Your task to perform on an android device: turn pop-ups off in chrome Image 0: 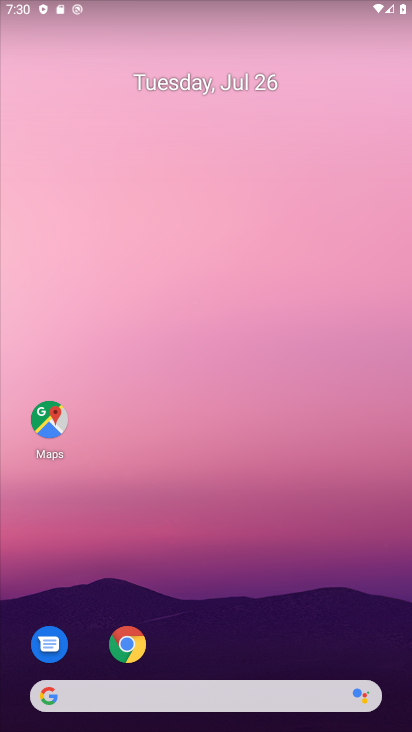
Step 0: click (125, 642)
Your task to perform on an android device: turn pop-ups off in chrome Image 1: 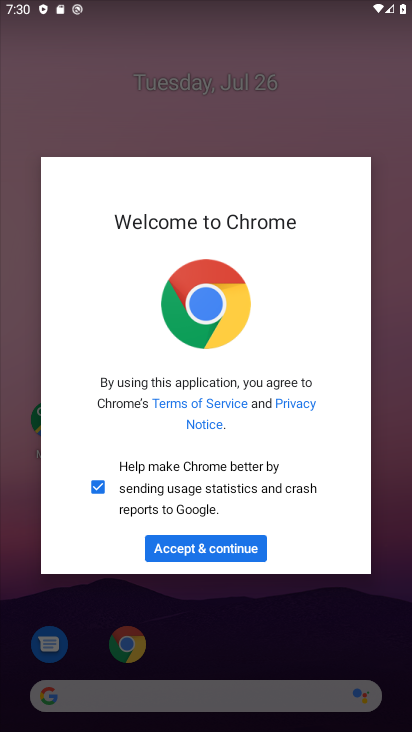
Step 1: click (211, 548)
Your task to perform on an android device: turn pop-ups off in chrome Image 2: 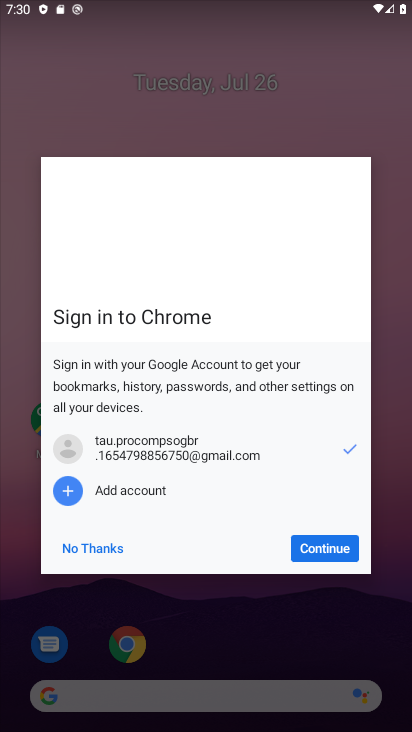
Step 2: click (319, 548)
Your task to perform on an android device: turn pop-ups off in chrome Image 3: 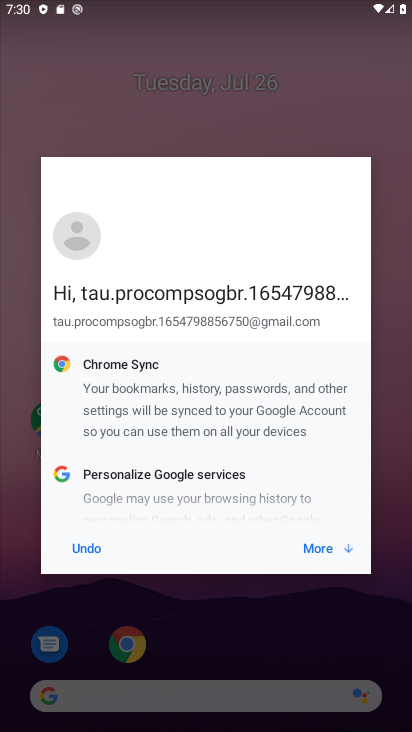
Step 3: click (319, 547)
Your task to perform on an android device: turn pop-ups off in chrome Image 4: 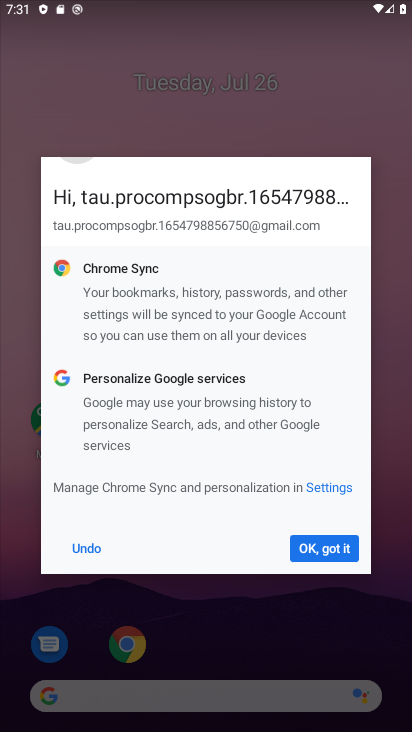
Step 4: click (319, 546)
Your task to perform on an android device: turn pop-ups off in chrome Image 5: 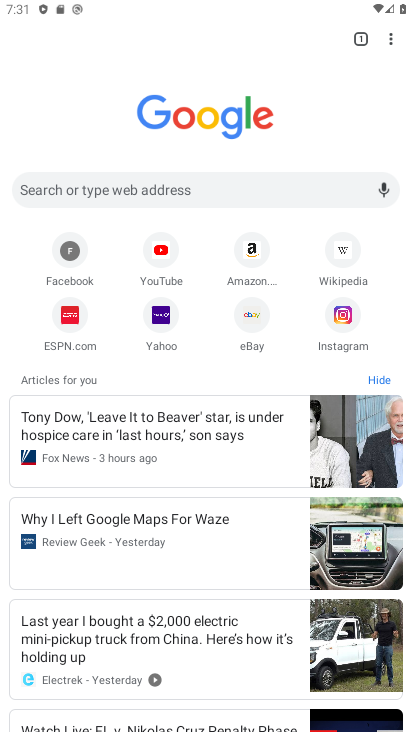
Step 5: click (392, 43)
Your task to perform on an android device: turn pop-ups off in chrome Image 6: 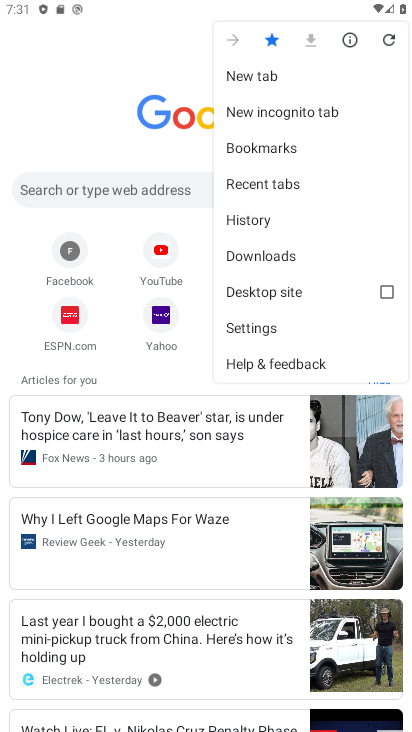
Step 6: click (251, 322)
Your task to perform on an android device: turn pop-ups off in chrome Image 7: 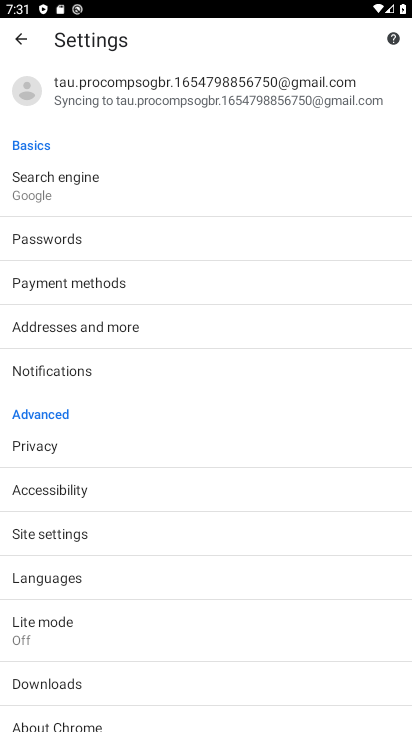
Step 7: click (75, 531)
Your task to perform on an android device: turn pop-ups off in chrome Image 8: 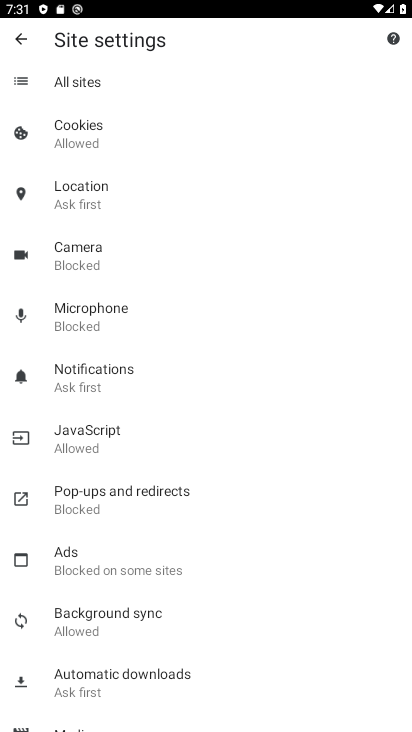
Step 8: click (96, 498)
Your task to perform on an android device: turn pop-ups off in chrome Image 9: 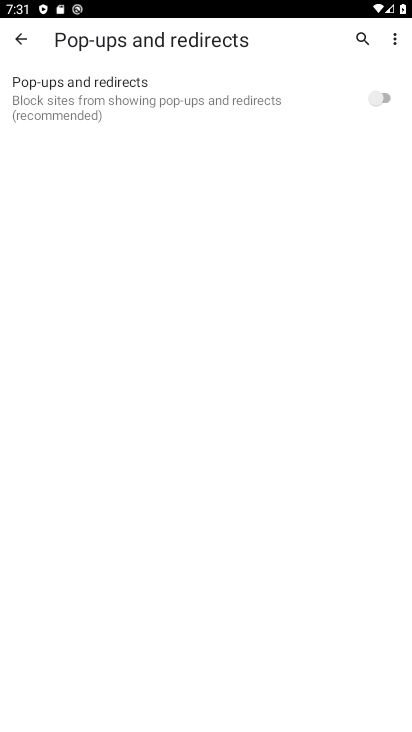
Step 9: task complete